Your task to perform on an android device: Open privacy settings Image 0: 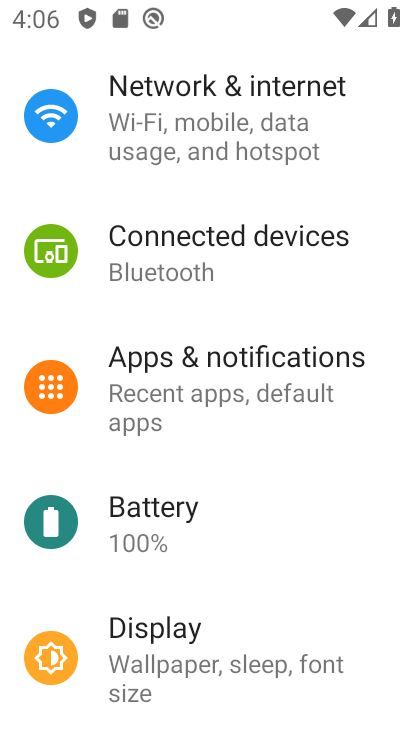
Step 0: drag from (261, 584) to (281, 168)
Your task to perform on an android device: Open privacy settings Image 1: 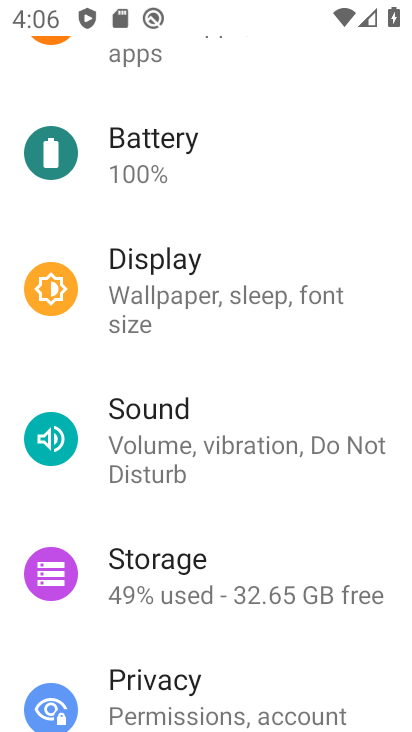
Step 1: click (175, 689)
Your task to perform on an android device: Open privacy settings Image 2: 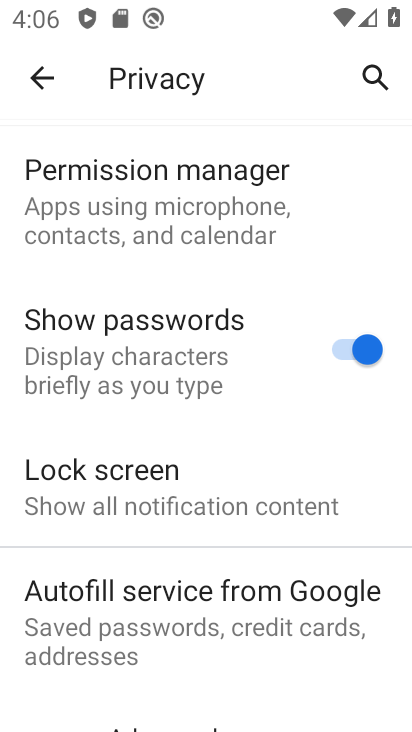
Step 2: task complete